Your task to perform on an android device: turn on priority inbox in the gmail app Image 0: 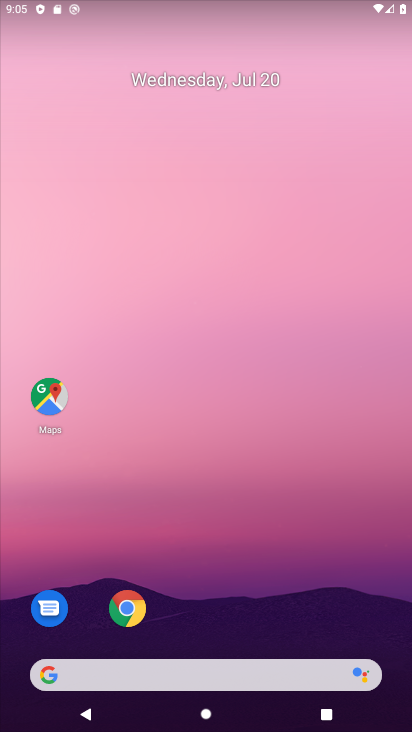
Step 0: drag from (388, 643) to (279, 142)
Your task to perform on an android device: turn on priority inbox in the gmail app Image 1: 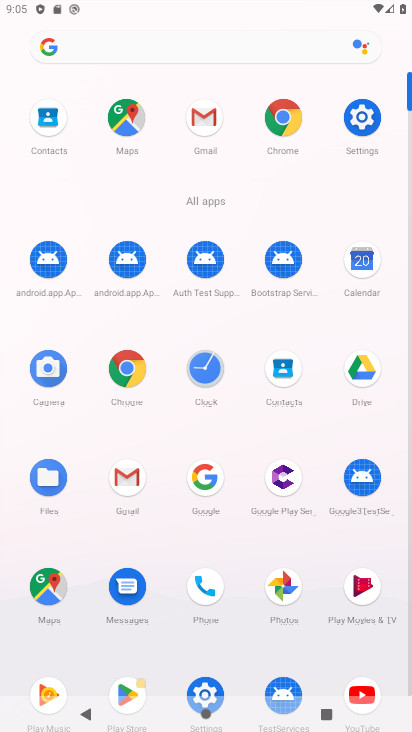
Step 1: click (207, 124)
Your task to perform on an android device: turn on priority inbox in the gmail app Image 2: 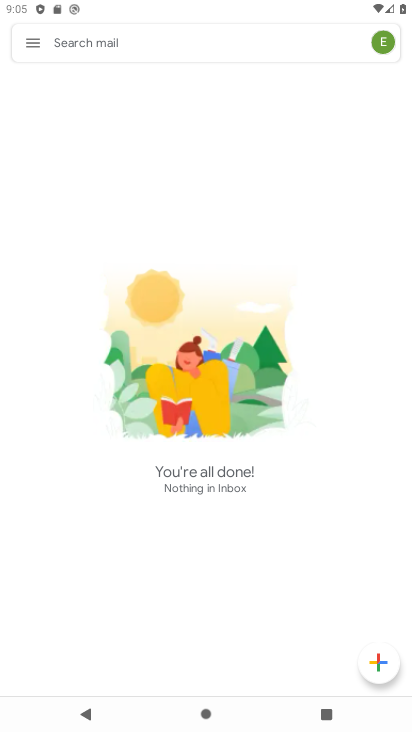
Step 2: click (32, 42)
Your task to perform on an android device: turn on priority inbox in the gmail app Image 3: 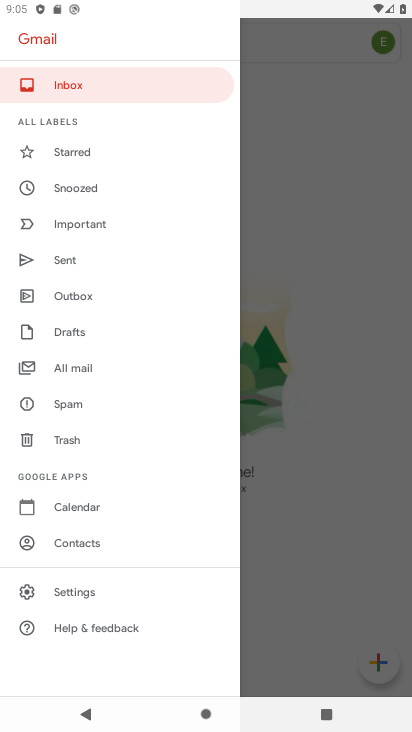
Step 3: click (78, 591)
Your task to perform on an android device: turn on priority inbox in the gmail app Image 4: 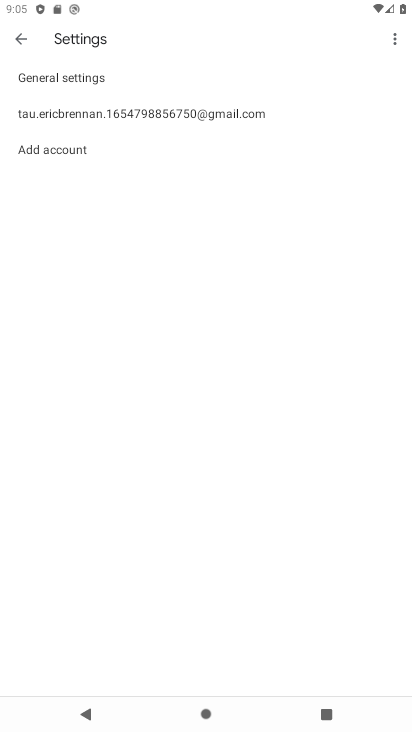
Step 4: click (202, 109)
Your task to perform on an android device: turn on priority inbox in the gmail app Image 5: 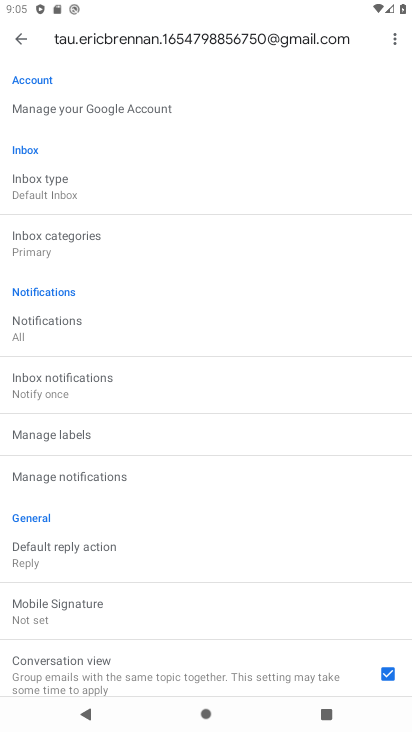
Step 5: click (172, 191)
Your task to perform on an android device: turn on priority inbox in the gmail app Image 6: 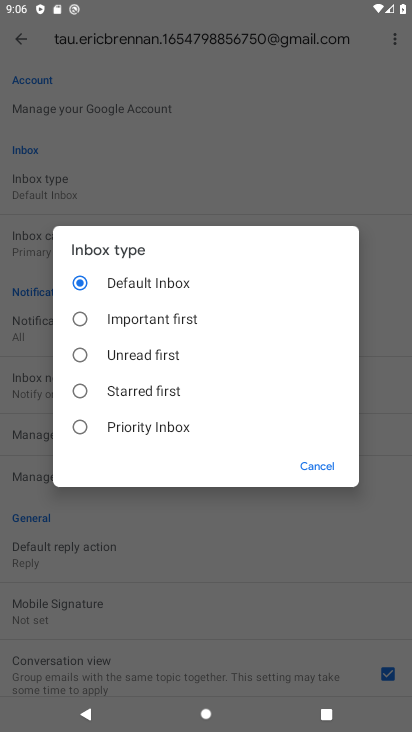
Step 6: click (128, 428)
Your task to perform on an android device: turn on priority inbox in the gmail app Image 7: 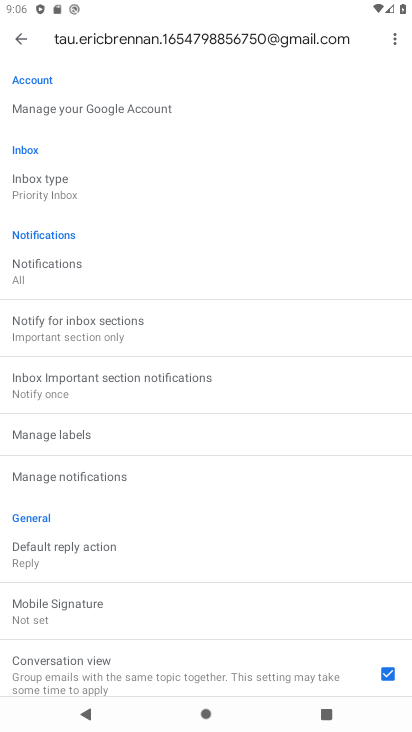
Step 7: task complete